Your task to perform on an android device: turn pop-ups off in chrome Image 0: 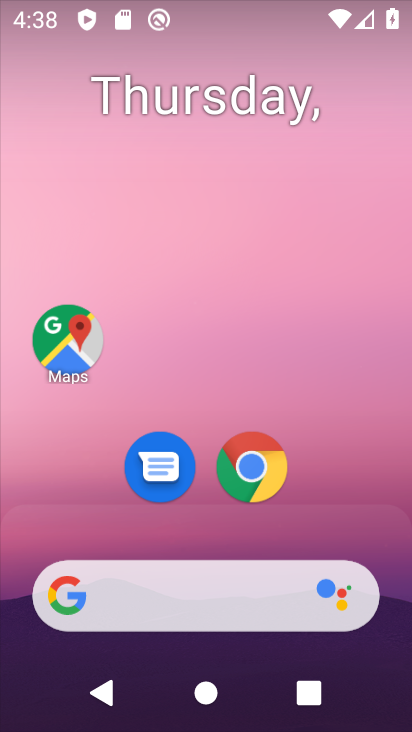
Step 0: click (273, 476)
Your task to perform on an android device: turn pop-ups off in chrome Image 1: 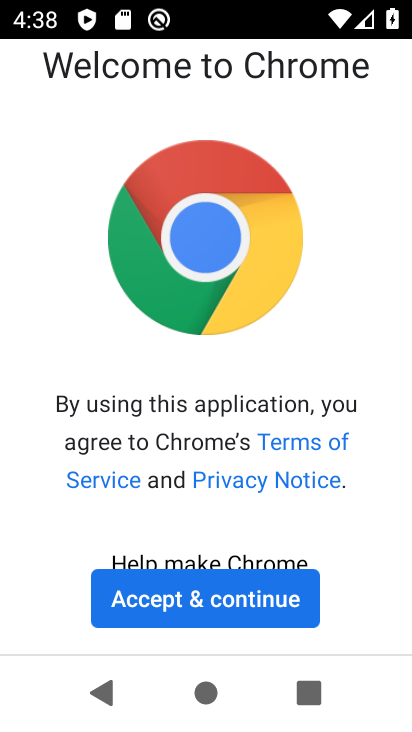
Step 1: click (177, 610)
Your task to perform on an android device: turn pop-ups off in chrome Image 2: 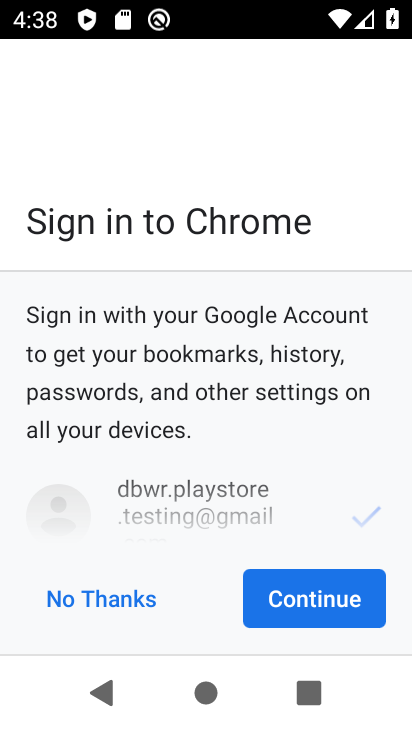
Step 2: click (258, 611)
Your task to perform on an android device: turn pop-ups off in chrome Image 3: 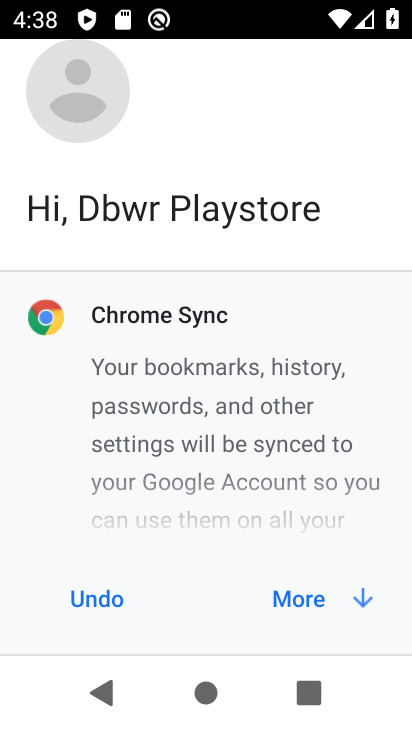
Step 3: click (297, 609)
Your task to perform on an android device: turn pop-ups off in chrome Image 4: 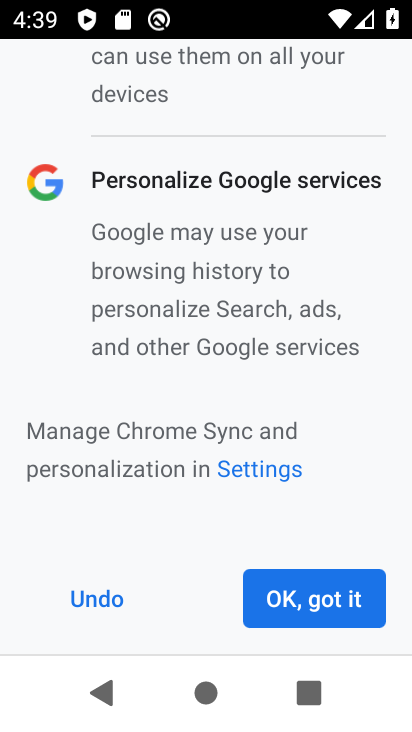
Step 4: click (297, 609)
Your task to perform on an android device: turn pop-ups off in chrome Image 5: 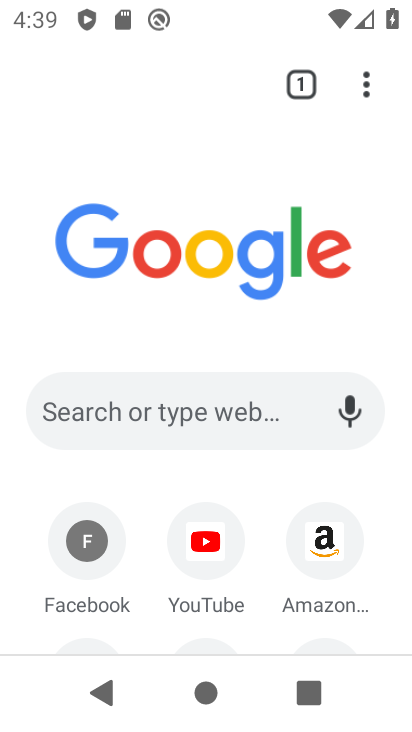
Step 5: click (372, 67)
Your task to perform on an android device: turn pop-ups off in chrome Image 6: 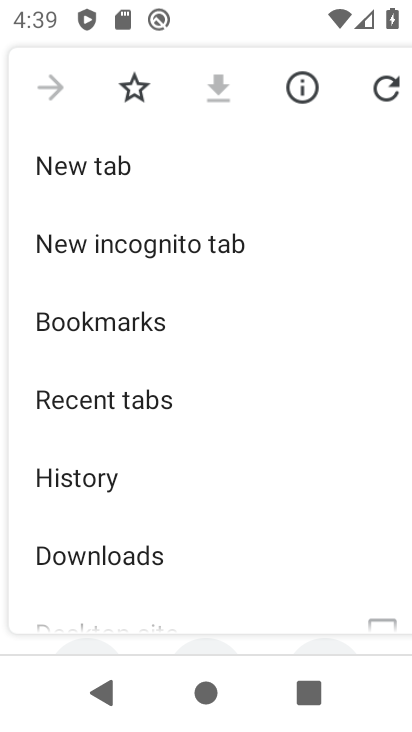
Step 6: drag from (276, 598) to (247, 198)
Your task to perform on an android device: turn pop-ups off in chrome Image 7: 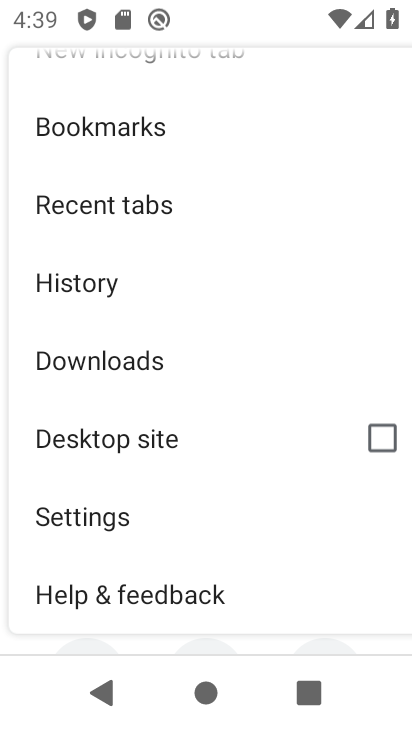
Step 7: click (251, 516)
Your task to perform on an android device: turn pop-ups off in chrome Image 8: 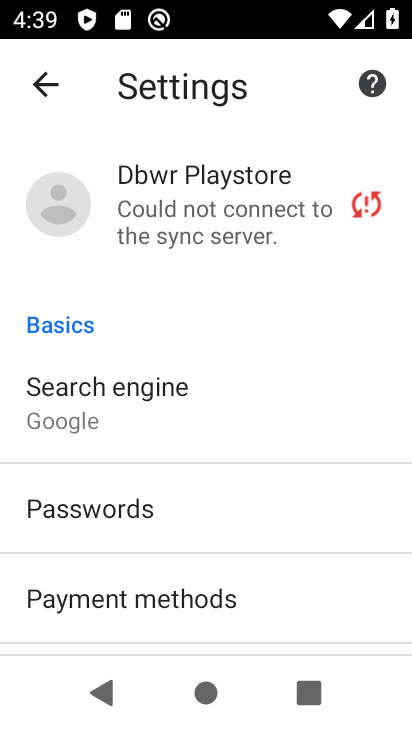
Step 8: drag from (274, 599) to (224, 48)
Your task to perform on an android device: turn pop-ups off in chrome Image 9: 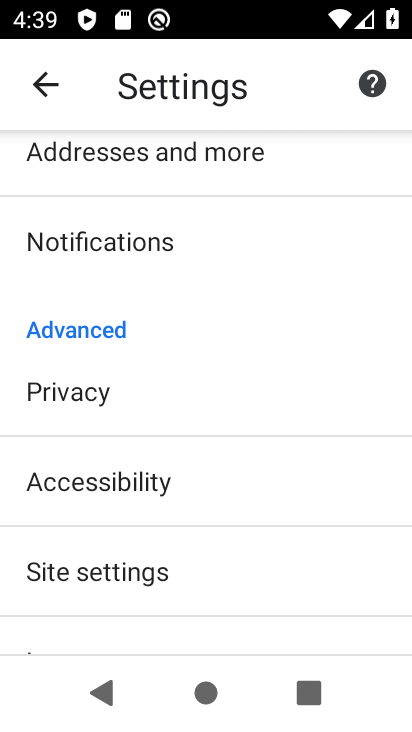
Step 9: click (278, 570)
Your task to perform on an android device: turn pop-ups off in chrome Image 10: 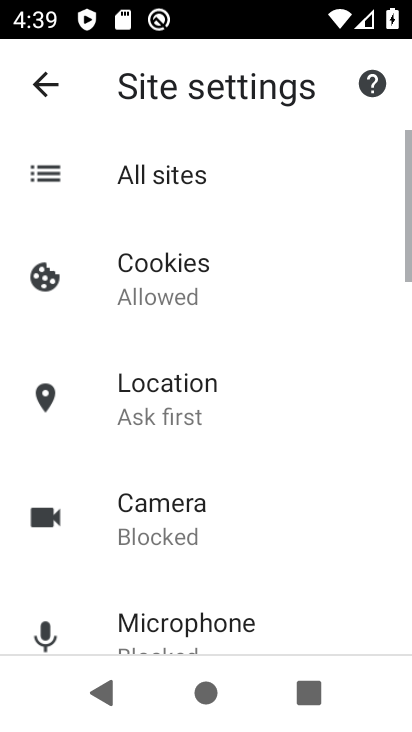
Step 10: drag from (278, 570) to (182, 45)
Your task to perform on an android device: turn pop-ups off in chrome Image 11: 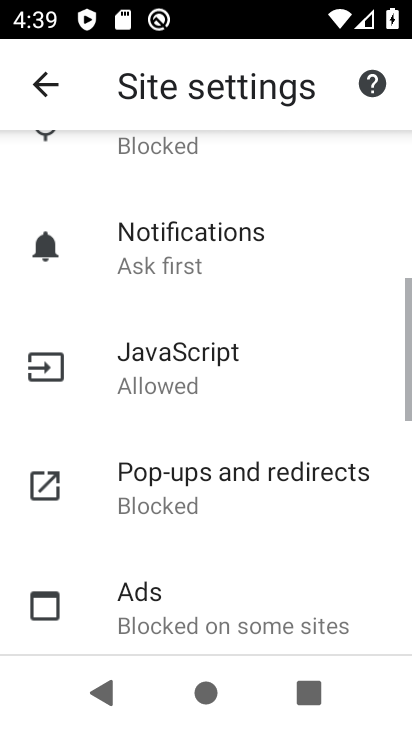
Step 11: click (221, 432)
Your task to perform on an android device: turn pop-ups off in chrome Image 12: 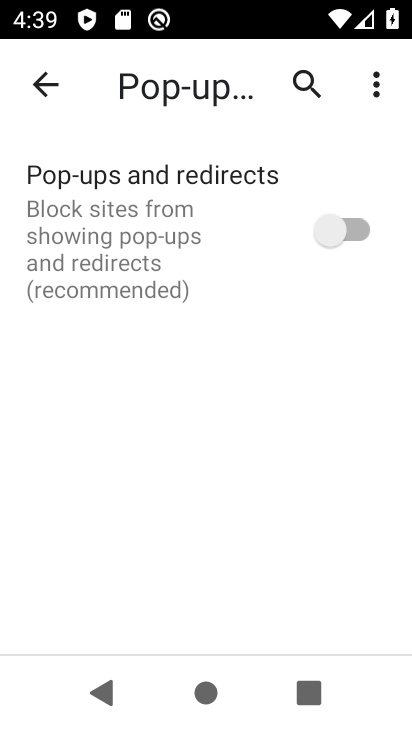
Step 12: task complete